Your task to perform on an android device: What is the news today? Image 0: 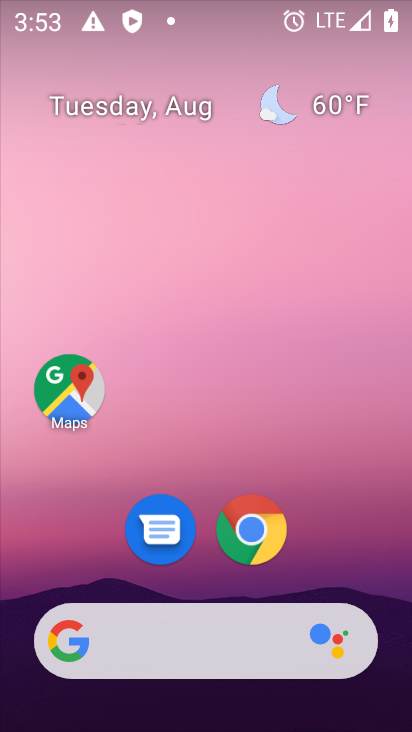
Step 0: drag from (6, 282) to (406, 360)
Your task to perform on an android device: What is the news today? Image 1: 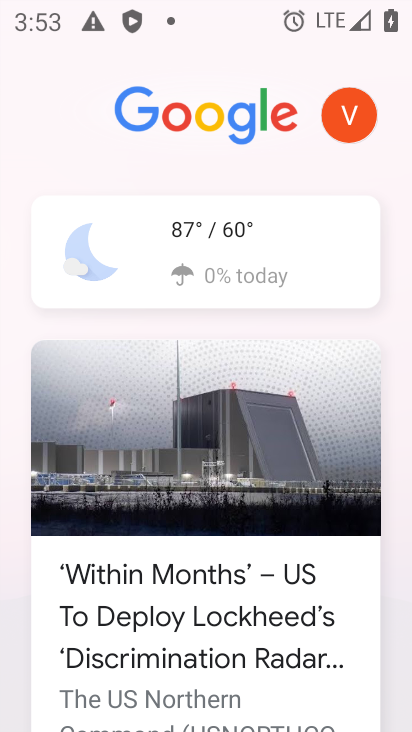
Step 1: task complete